Your task to perform on an android device: turn notification dots off Image 0: 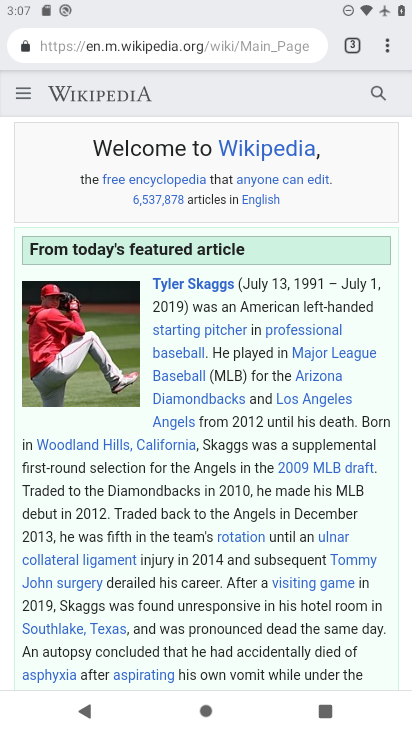
Step 0: press home button
Your task to perform on an android device: turn notification dots off Image 1: 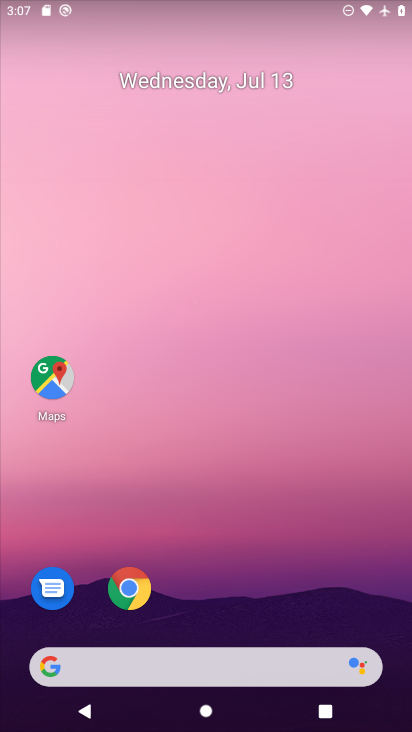
Step 1: drag from (213, 610) to (227, 238)
Your task to perform on an android device: turn notification dots off Image 2: 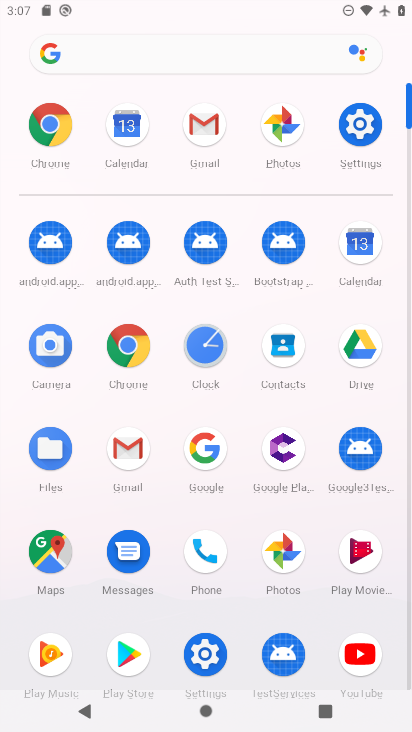
Step 2: click (359, 117)
Your task to perform on an android device: turn notification dots off Image 3: 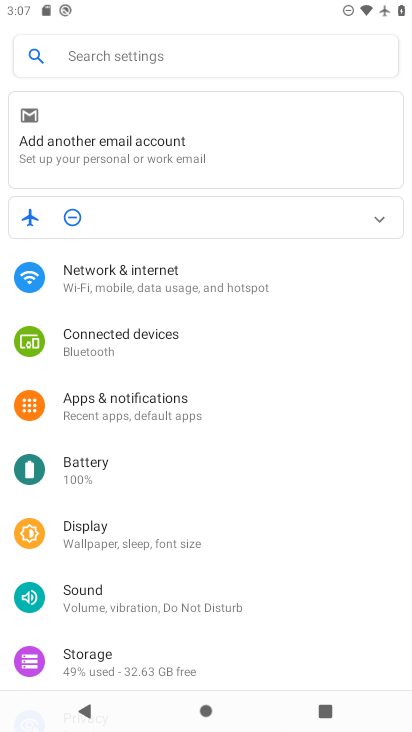
Step 3: click (146, 405)
Your task to perform on an android device: turn notification dots off Image 4: 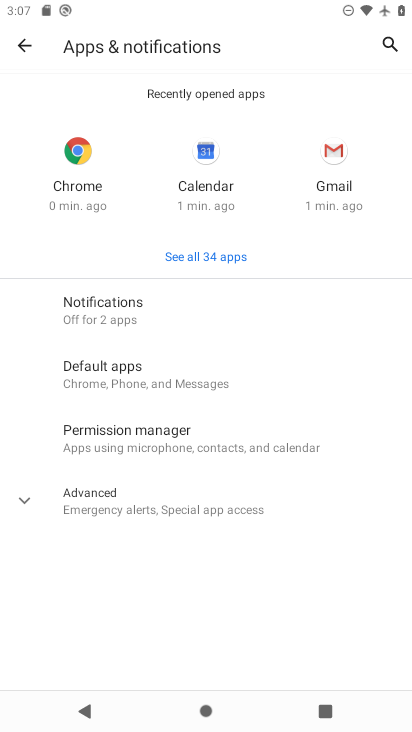
Step 4: click (142, 475)
Your task to perform on an android device: turn notification dots off Image 5: 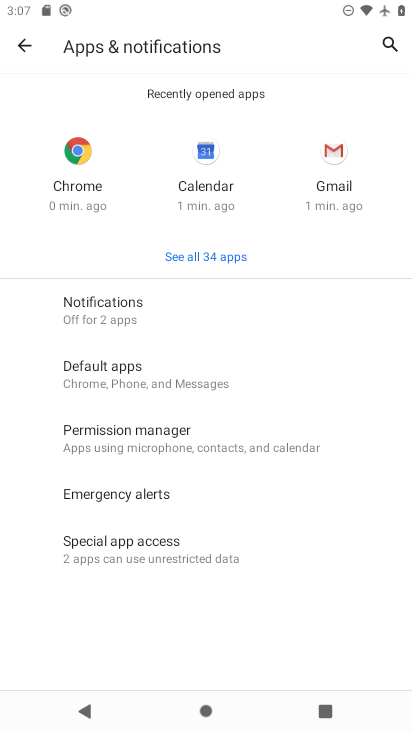
Step 5: click (131, 324)
Your task to perform on an android device: turn notification dots off Image 6: 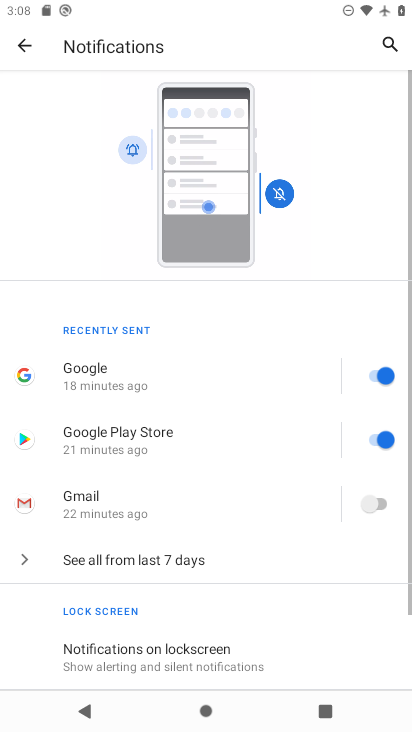
Step 6: drag from (236, 629) to (178, 87)
Your task to perform on an android device: turn notification dots off Image 7: 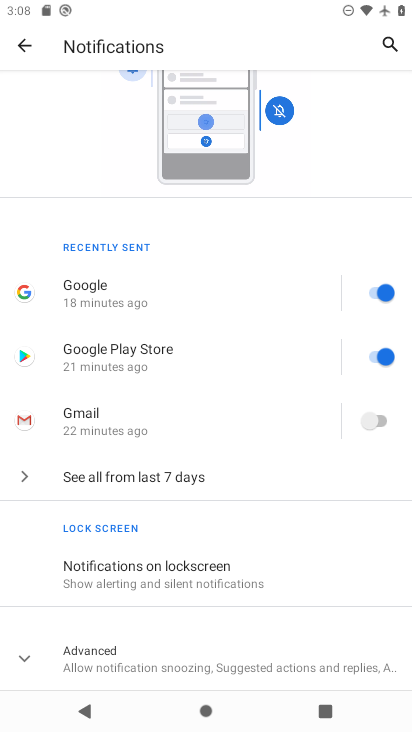
Step 7: click (139, 662)
Your task to perform on an android device: turn notification dots off Image 8: 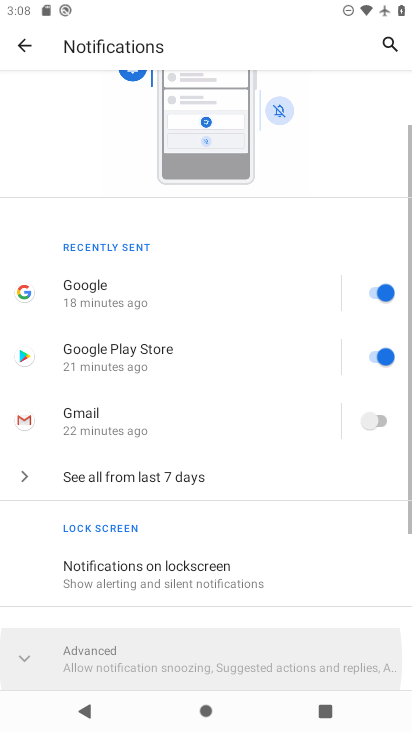
Step 8: drag from (137, 658) to (83, 198)
Your task to perform on an android device: turn notification dots off Image 9: 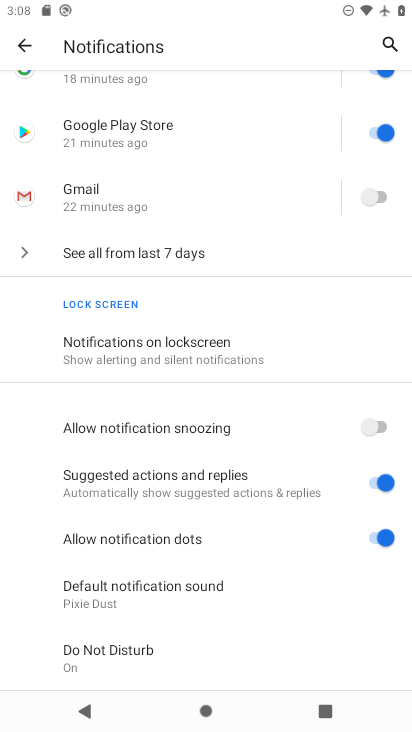
Step 9: click (375, 539)
Your task to perform on an android device: turn notification dots off Image 10: 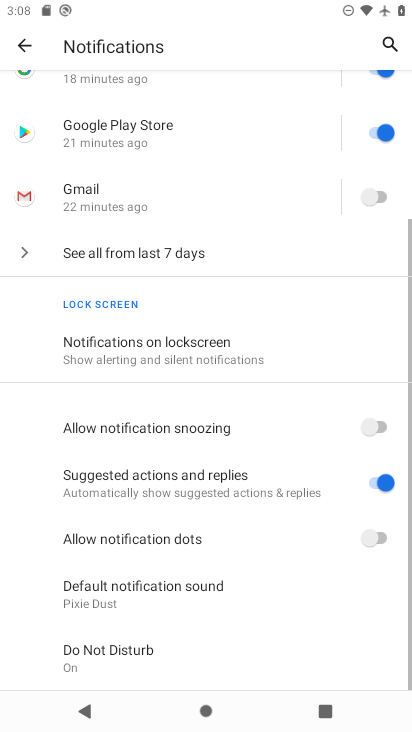
Step 10: task complete